Your task to perform on an android device: turn vacation reply on in the gmail app Image 0: 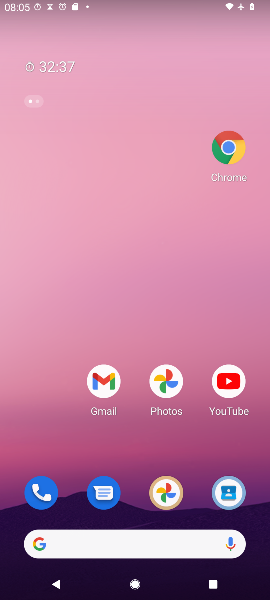
Step 0: press home button
Your task to perform on an android device: turn vacation reply on in the gmail app Image 1: 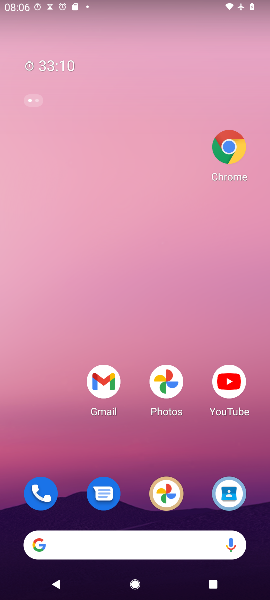
Step 1: click (102, 375)
Your task to perform on an android device: turn vacation reply on in the gmail app Image 2: 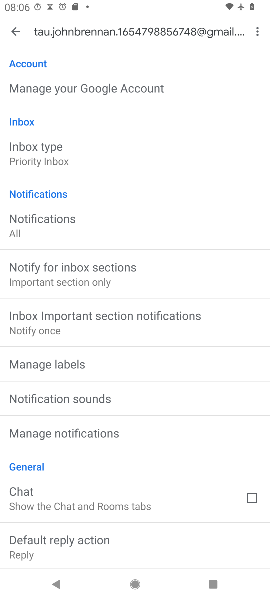
Step 2: drag from (208, 534) to (170, 247)
Your task to perform on an android device: turn vacation reply on in the gmail app Image 3: 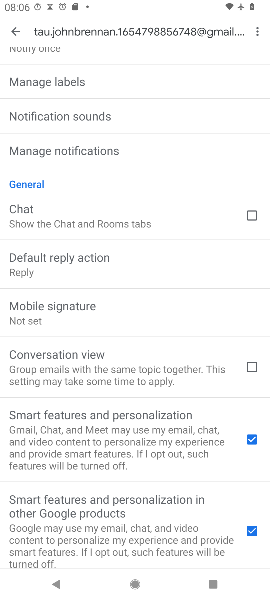
Step 3: drag from (198, 234) to (200, 5)
Your task to perform on an android device: turn vacation reply on in the gmail app Image 4: 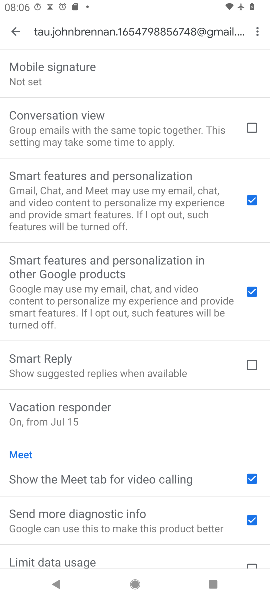
Step 4: click (47, 422)
Your task to perform on an android device: turn vacation reply on in the gmail app Image 5: 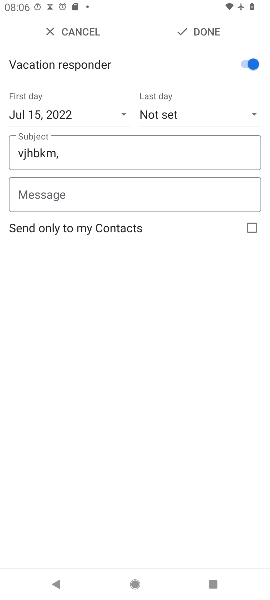
Step 5: task complete